Your task to perform on an android device: turn on the 12-hour format for clock Image 0: 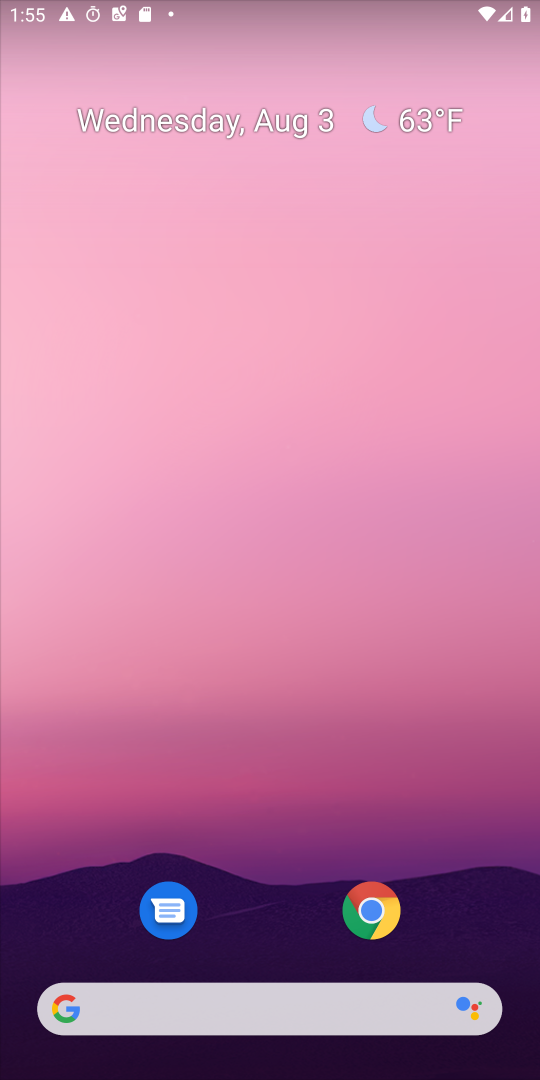
Step 0: drag from (272, 753) to (415, 0)
Your task to perform on an android device: turn on the 12-hour format for clock Image 1: 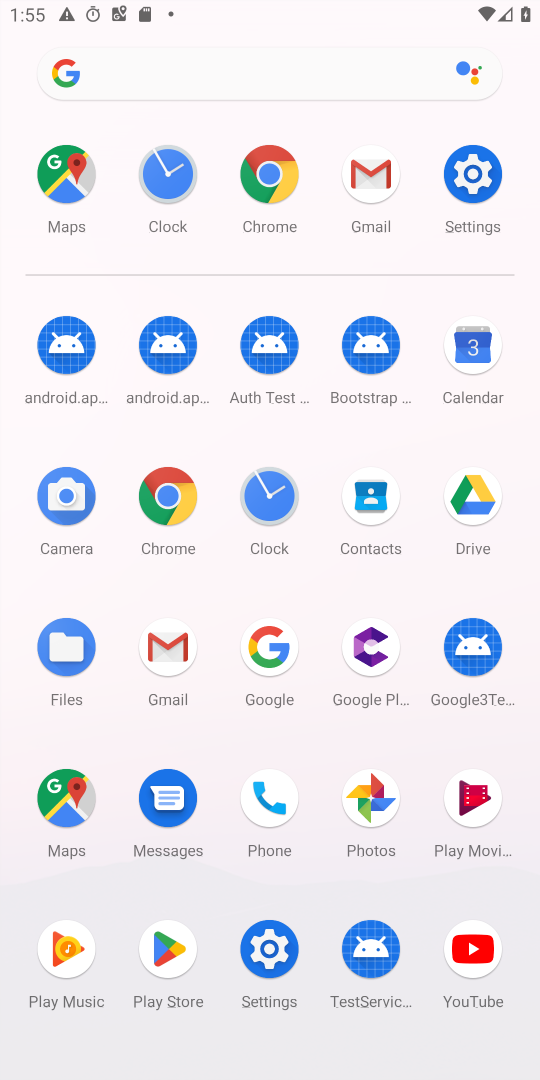
Step 1: click (276, 504)
Your task to perform on an android device: turn on the 12-hour format for clock Image 2: 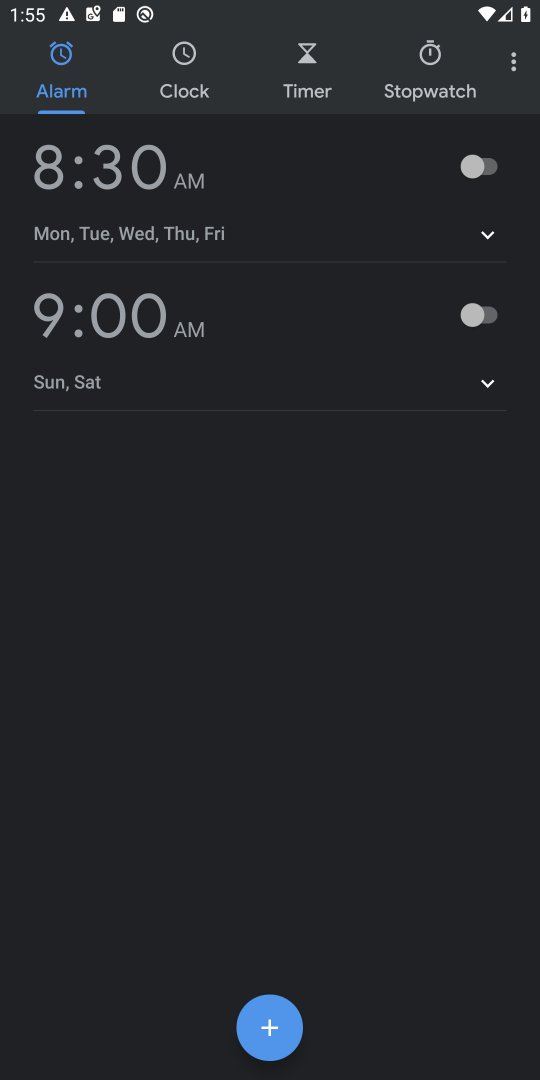
Step 2: click (515, 56)
Your task to perform on an android device: turn on the 12-hour format for clock Image 3: 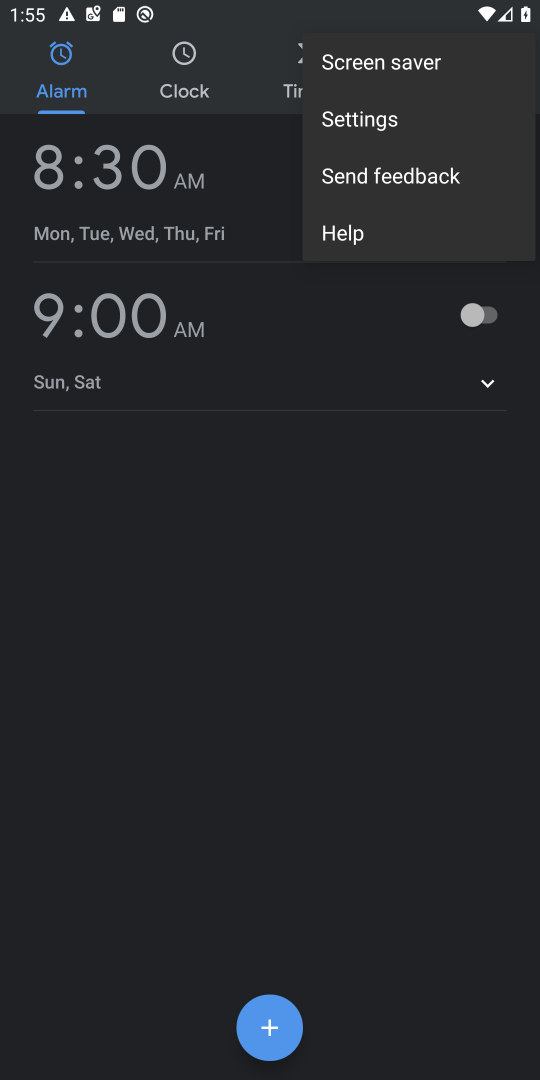
Step 3: click (405, 122)
Your task to perform on an android device: turn on the 12-hour format for clock Image 4: 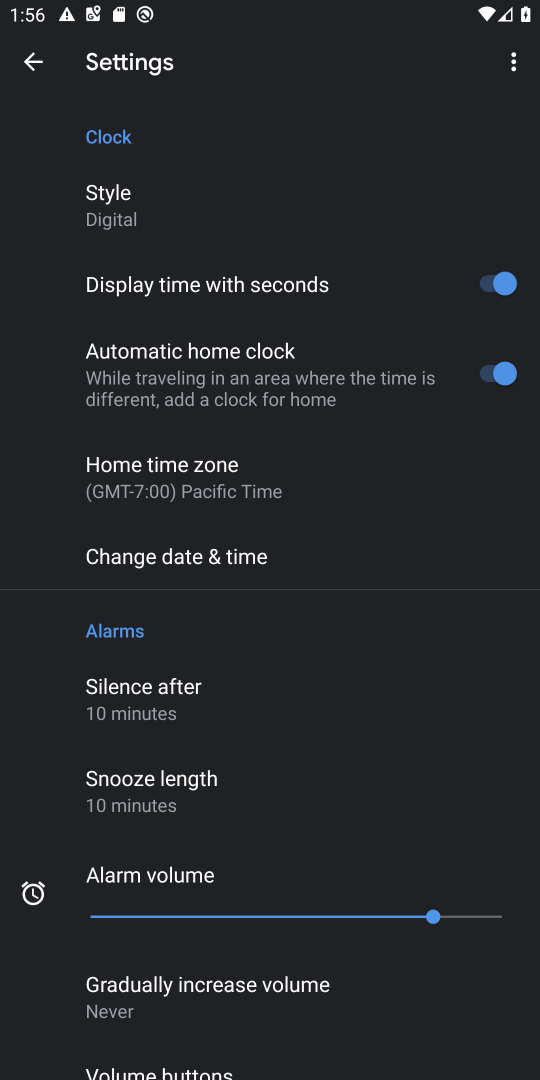
Step 4: press home button
Your task to perform on an android device: turn on the 12-hour format for clock Image 5: 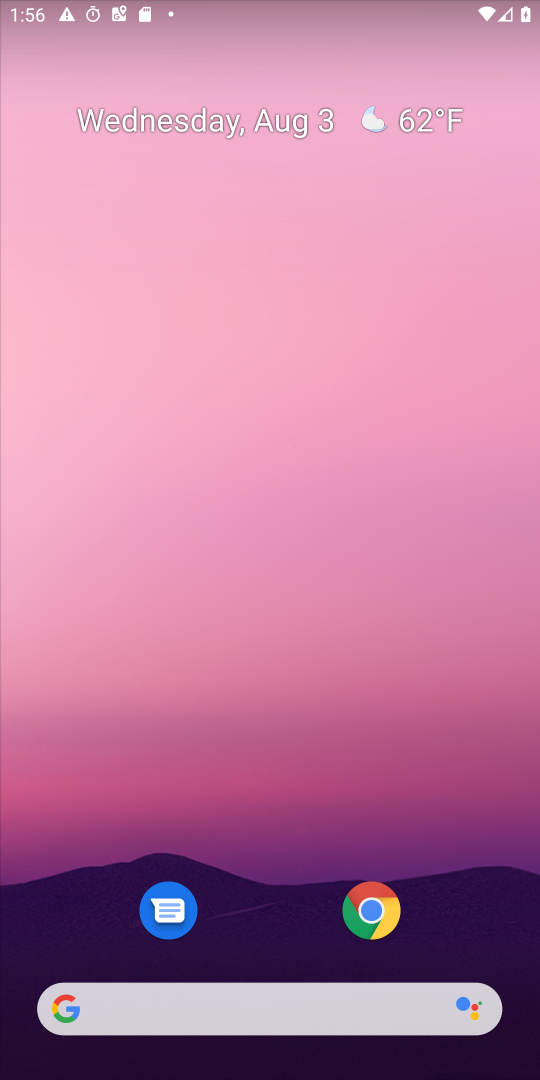
Step 5: drag from (312, 993) to (274, 23)
Your task to perform on an android device: turn on the 12-hour format for clock Image 6: 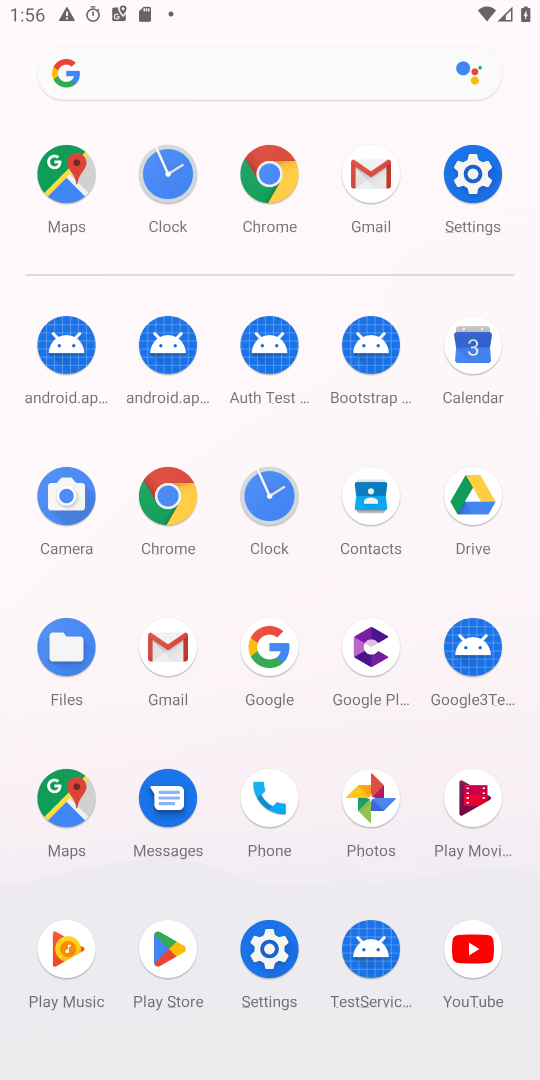
Step 6: click (279, 501)
Your task to perform on an android device: turn on the 12-hour format for clock Image 7: 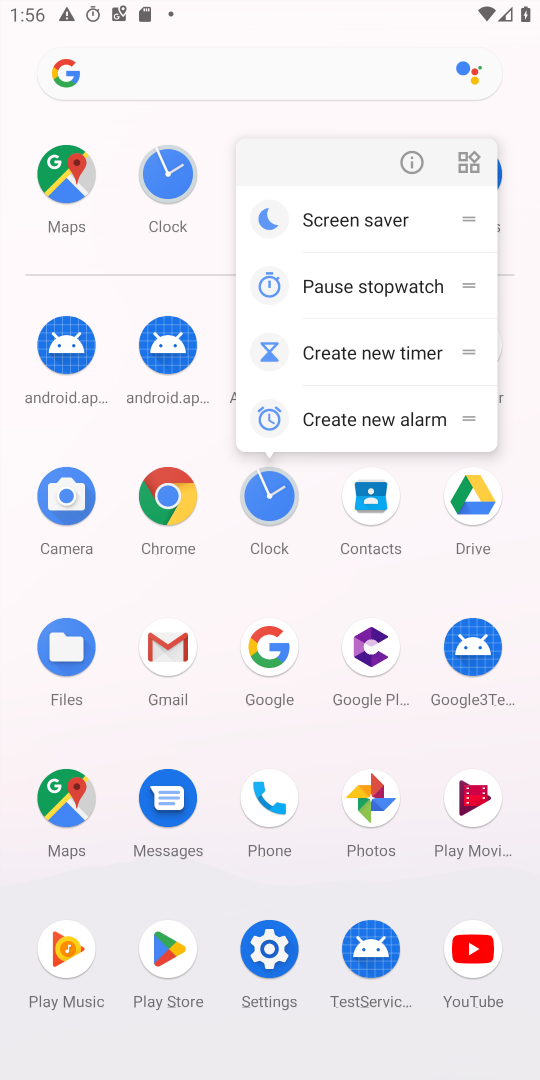
Step 7: click (252, 497)
Your task to perform on an android device: turn on the 12-hour format for clock Image 8: 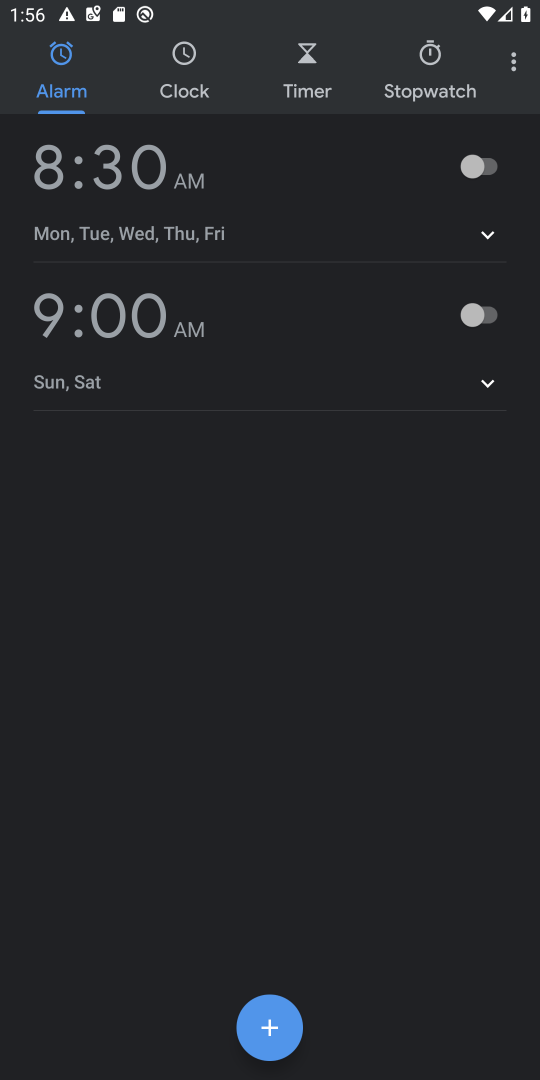
Step 8: click (516, 53)
Your task to perform on an android device: turn on the 12-hour format for clock Image 9: 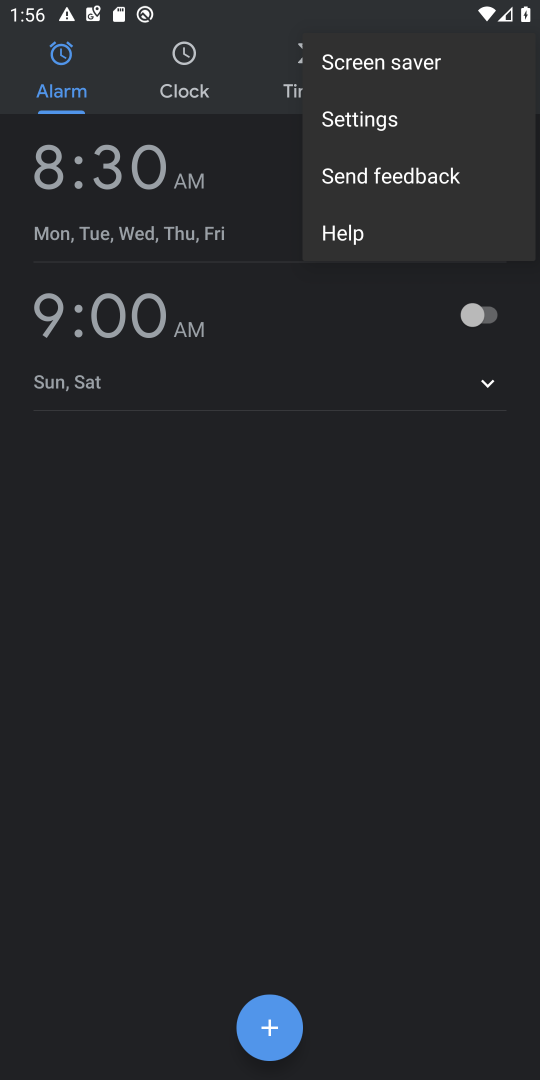
Step 9: click (371, 117)
Your task to perform on an android device: turn on the 12-hour format for clock Image 10: 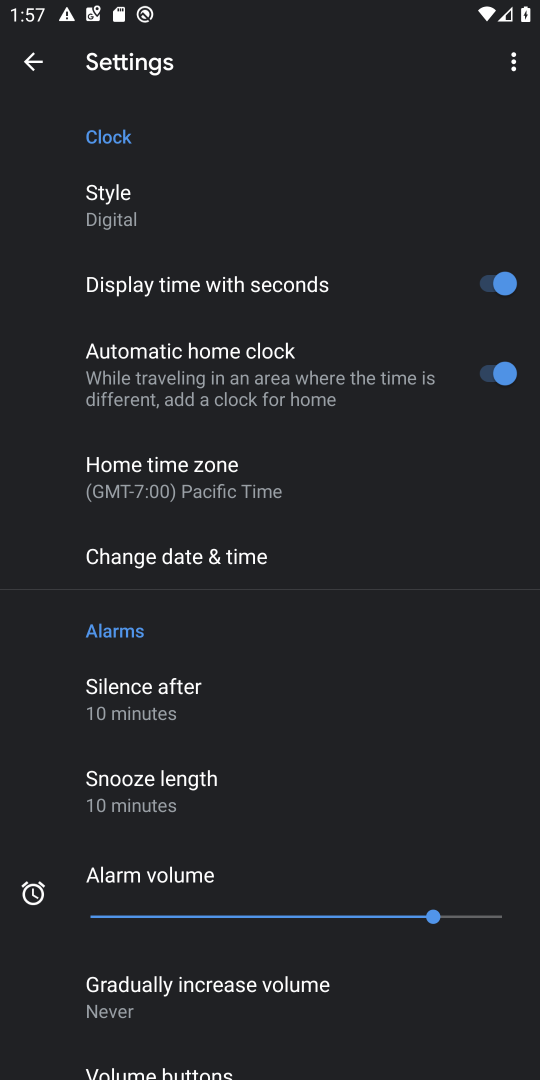
Step 10: click (277, 573)
Your task to perform on an android device: turn on the 12-hour format for clock Image 11: 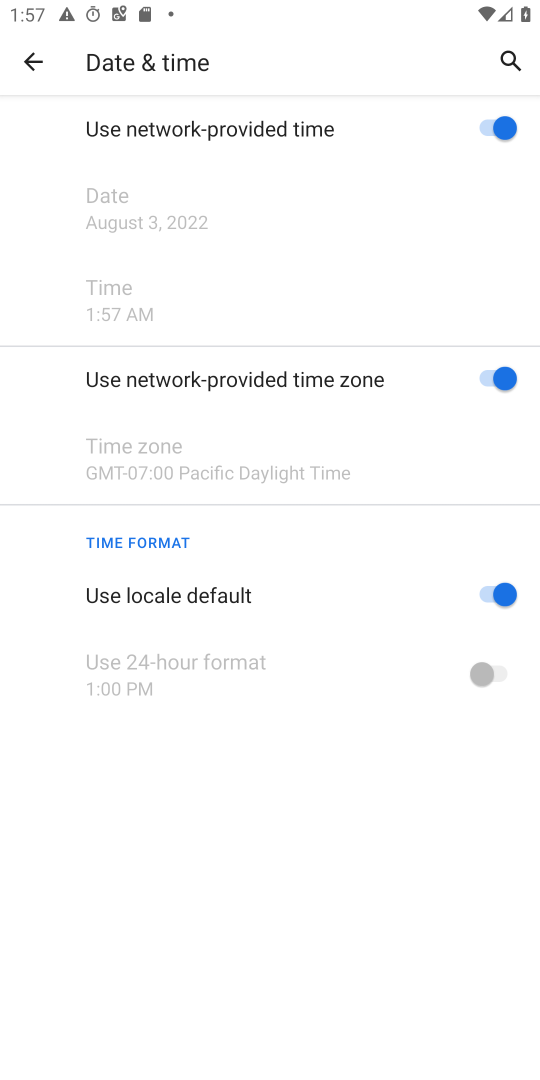
Step 11: click (486, 585)
Your task to perform on an android device: turn on the 12-hour format for clock Image 12: 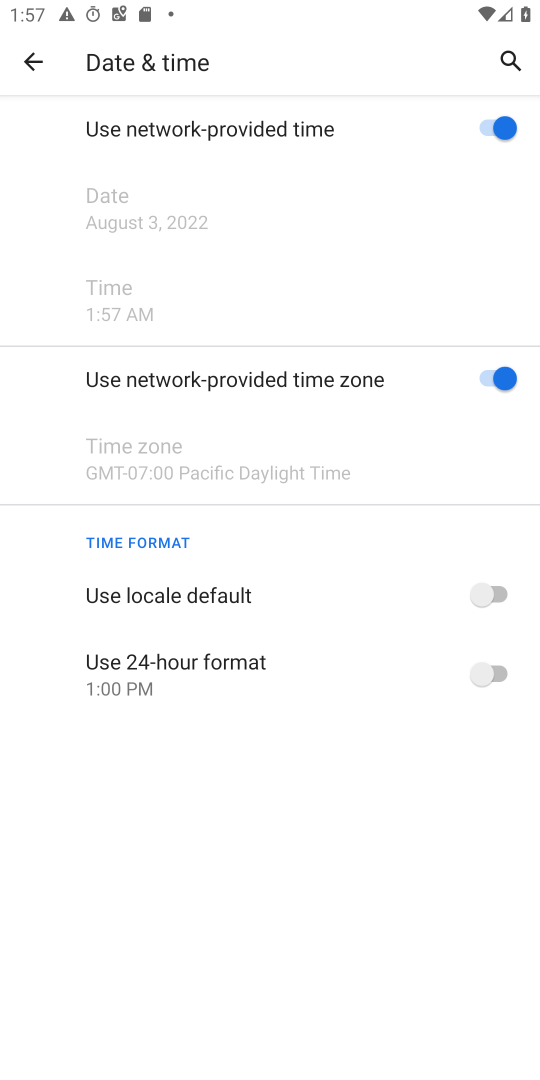
Step 12: task complete